Your task to perform on an android device: clear history in the chrome app Image 0: 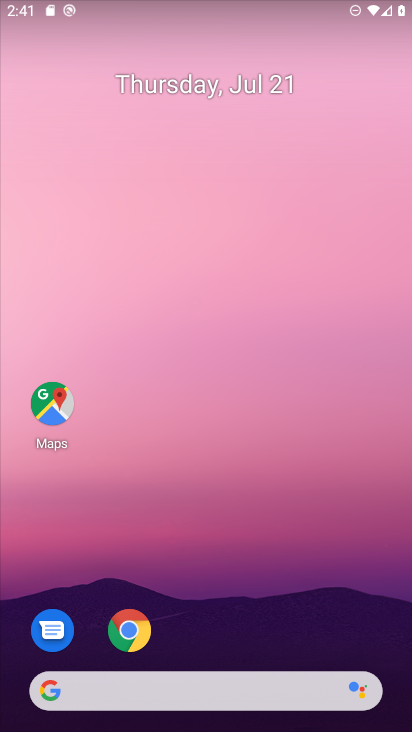
Step 0: click (136, 623)
Your task to perform on an android device: clear history in the chrome app Image 1: 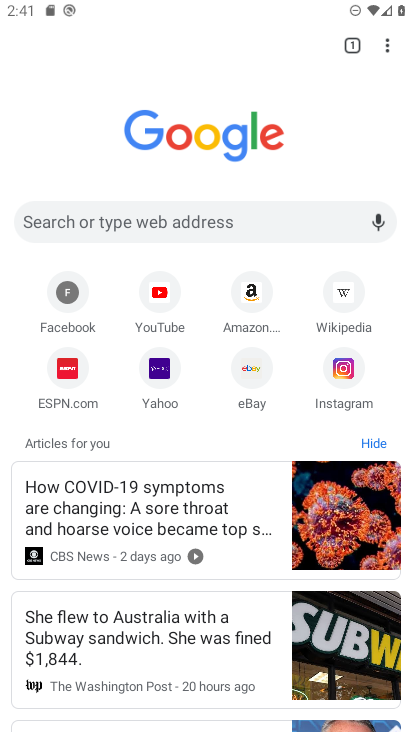
Step 1: drag from (380, 34) to (205, 256)
Your task to perform on an android device: clear history in the chrome app Image 2: 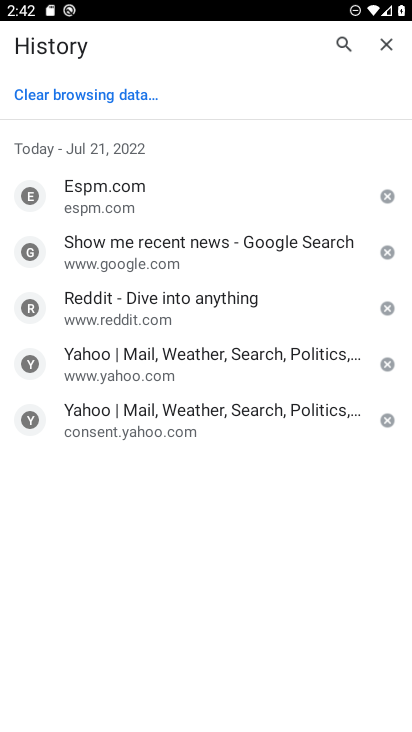
Step 2: click (118, 93)
Your task to perform on an android device: clear history in the chrome app Image 3: 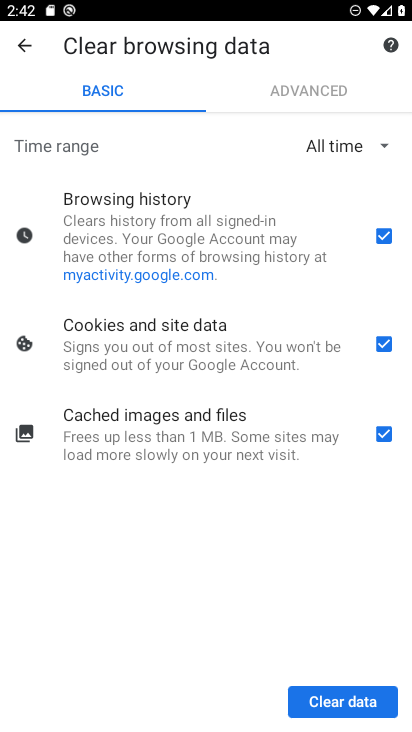
Step 3: click (346, 706)
Your task to perform on an android device: clear history in the chrome app Image 4: 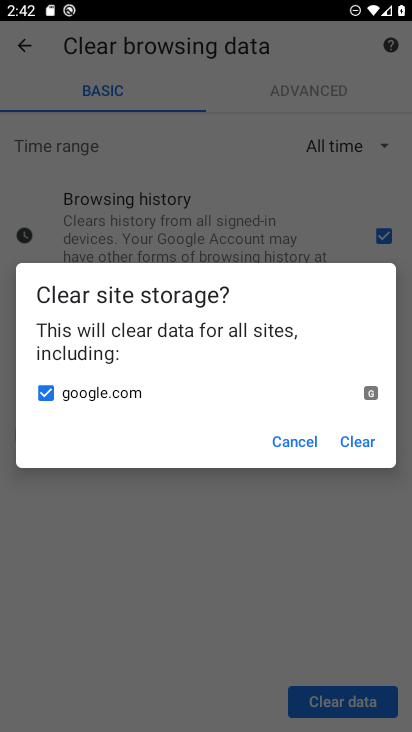
Step 4: click (366, 431)
Your task to perform on an android device: clear history in the chrome app Image 5: 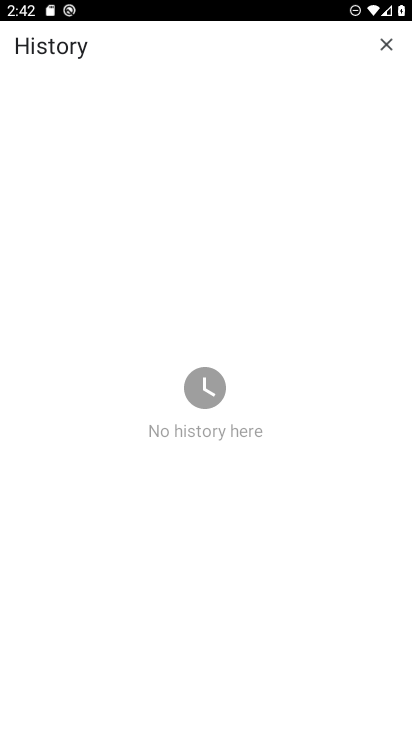
Step 5: task complete